Your task to perform on an android device: turn notification dots on Image 0: 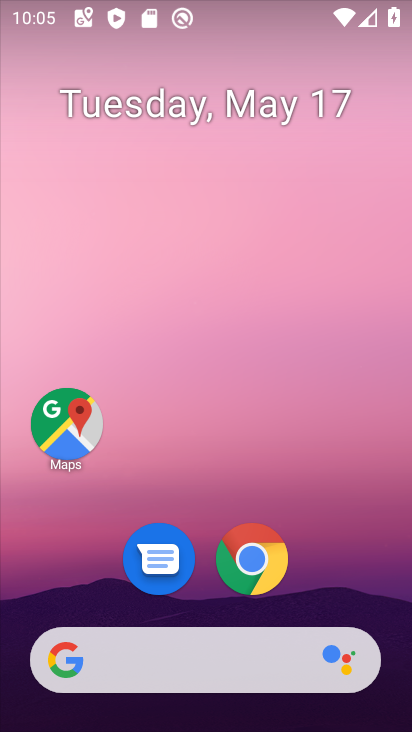
Step 0: drag from (183, 570) to (180, 26)
Your task to perform on an android device: turn notification dots on Image 1: 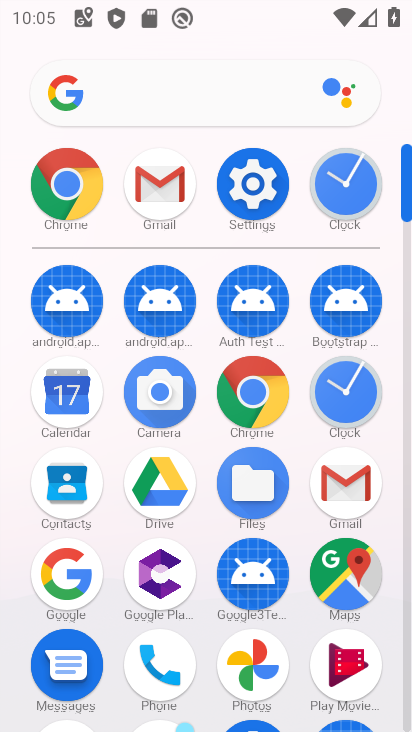
Step 1: click (256, 180)
Your task to perform on an android device: turn notification dots on Image 2: 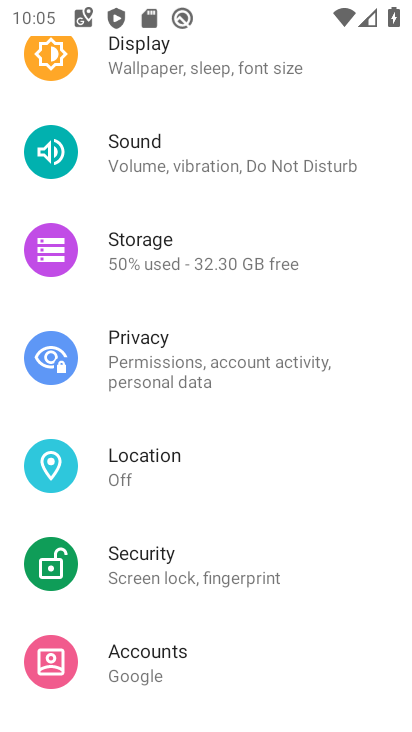
Step 2: drag from (223, 115) to (277, 680)
Your task to perform on an android device: turn notification dots on Image 3: 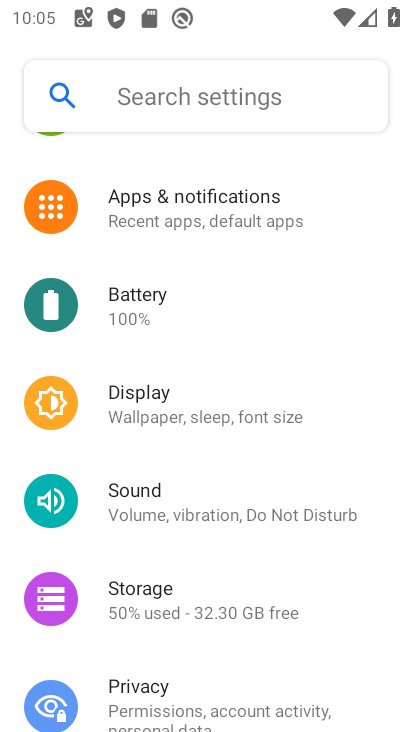
Step 3: click (236, 219)
Your task to perform on an android device: turn notification dots on Image 4: 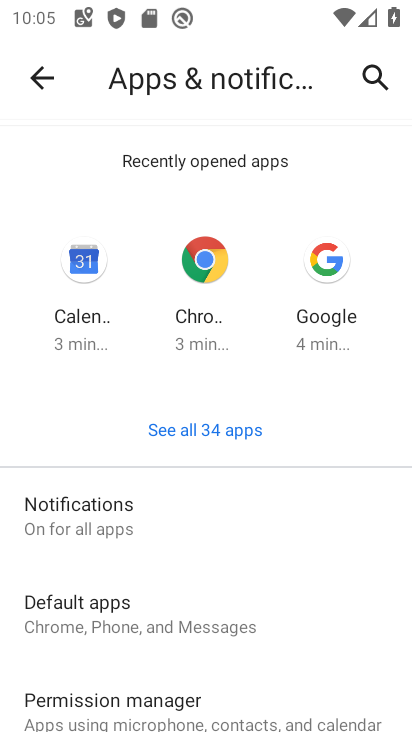
Step 4: click (215, 503)
Your task to perform on an android device: turn notification dots on Image 5: 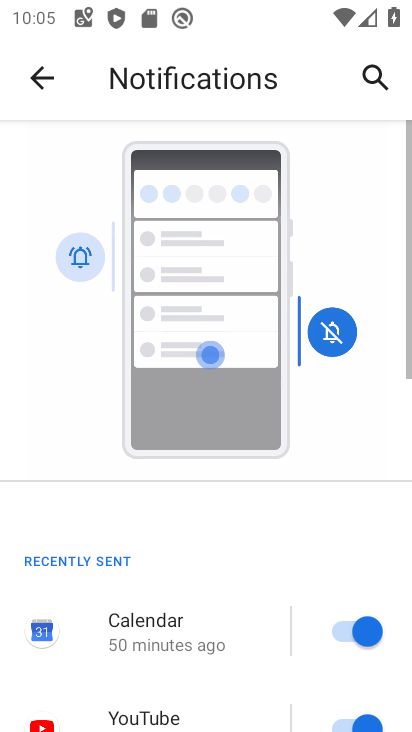
Step 5: drag from (215, 643) to (212, 83)
Your task to perform on an android device: turn notification dots on Image 6: 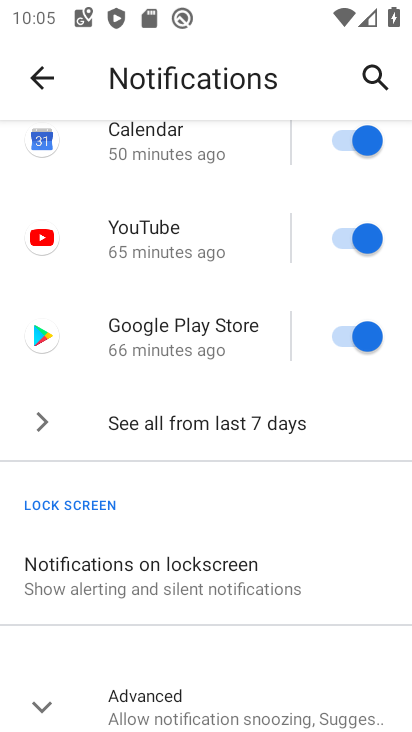
Step 6: drag from (257, 653) to (239, 259)
Your task to perform on an android device: turn notification dots on Image 7: 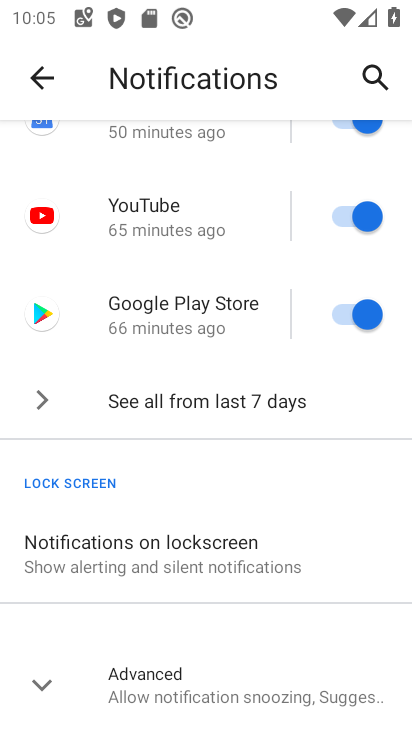
Step 7: click (237, 709)
Your task to perform on an android device: turn notification dots on Image 8: 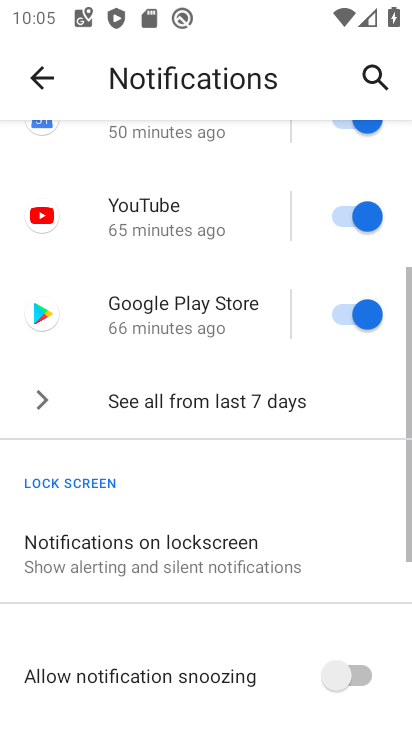
Step 8: task complete